Your task to perform on an android device: toggle translation in the chrome app Image 0: 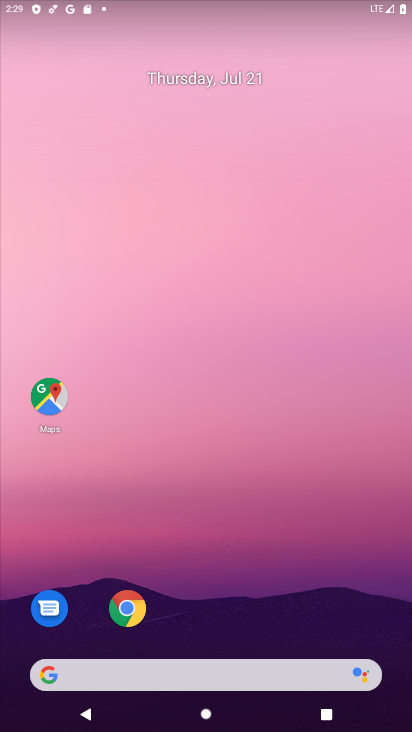
Step 0: click (134, 604)
Your task to perform on an android device: toggle translation in the chrome app Image 1: 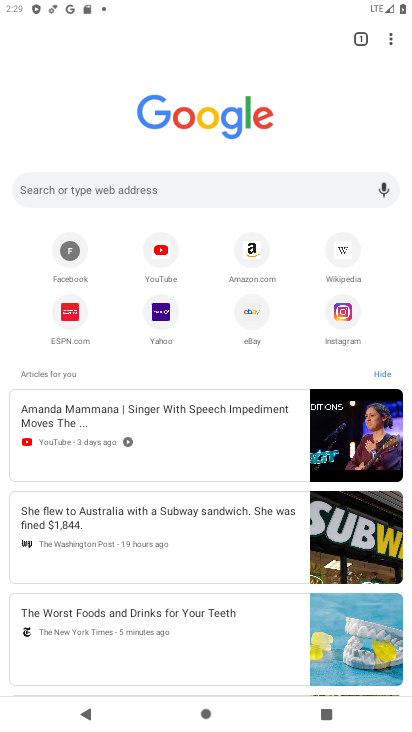
Step 1: click (387, 41)
Your task to perform on an android device: toggle translation in the chrome app Image 2: 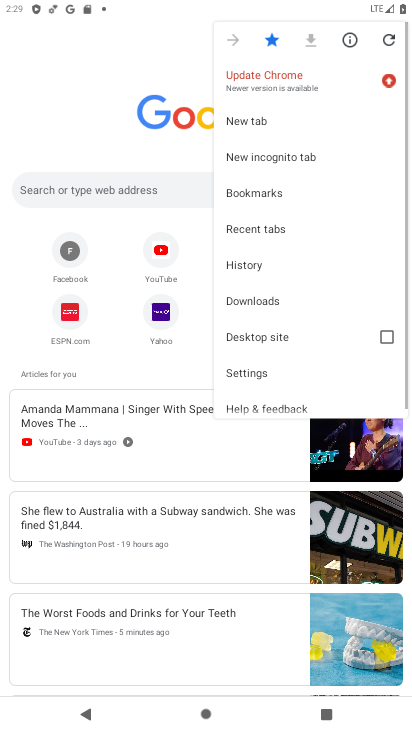
Step 2: click (246, 360)
Your task to perform on an android device: toggle translation in the chrome app Image 3: 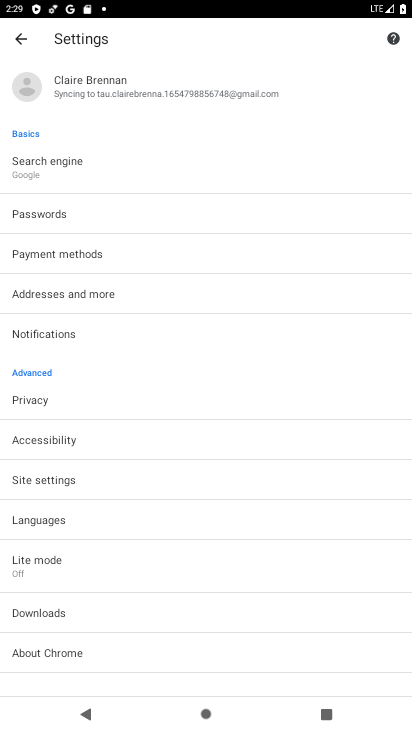
Step 3: click (43, 515)
Your task to perform on an android device: toggle translation in the chrome app Image 4: 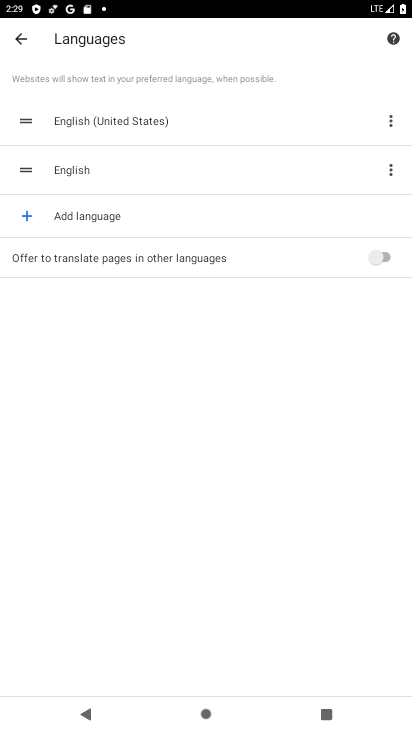
Step 4: click (381, 254)
Your task to perform on an android device: toggle translation in the chrome app Image 5: 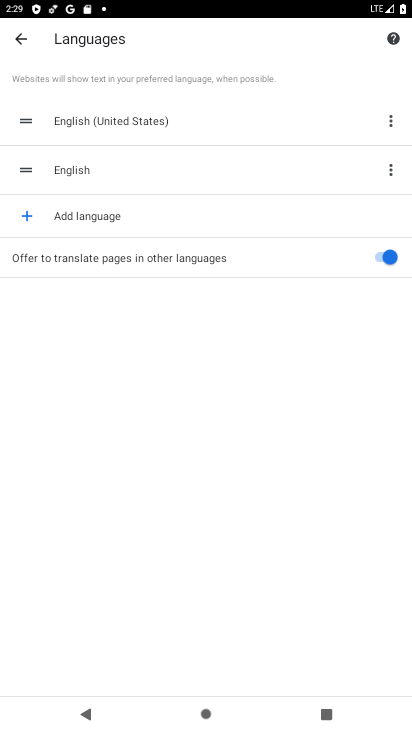
Step 5: task complete